Your task to perform on an android device: turn on translation in the chrome app Image 0: 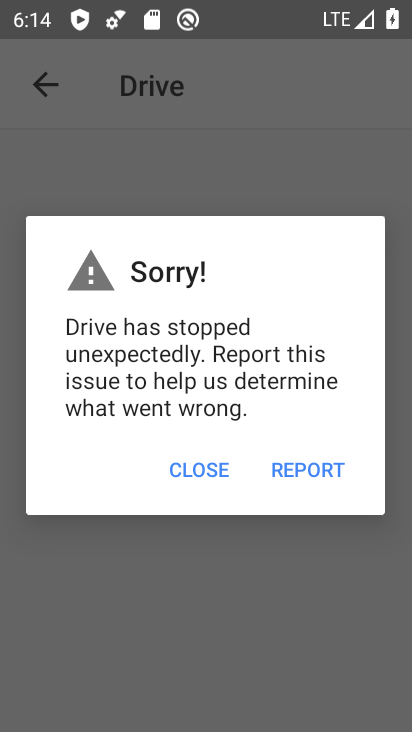
Step 0: press home button
Your task to perform on an android device: turn on translation in the chrome app Image 1: 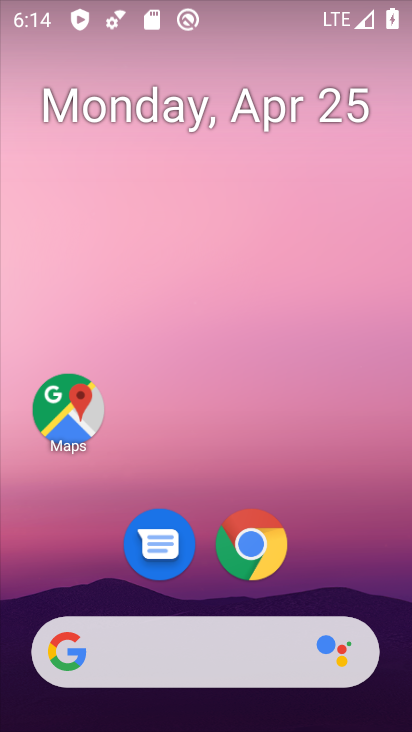
Step 1: click (239, 532)
Your task to perform on an android device: turn on translation in the chrome app Image 2: 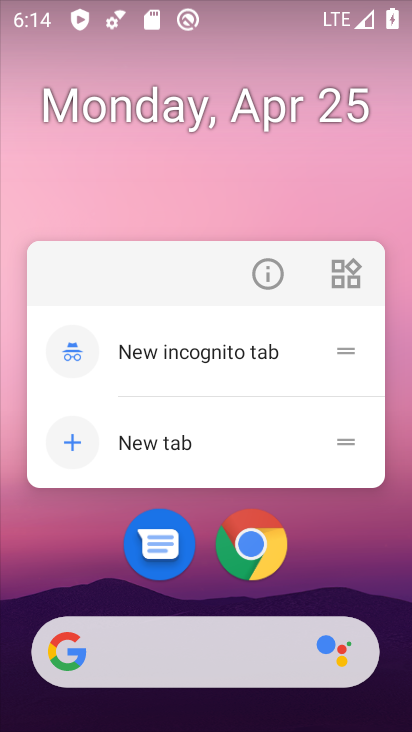
Step 2: click (248, 541)
Your task to perform on an android device: turn on translation in the chrome app Image 3: 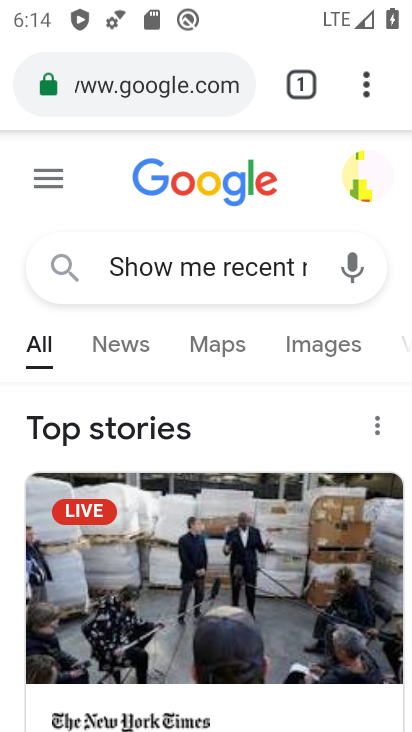
Step 3: click (373, 91)
Your task to perform on an android device: turn on translation in the chrome app Image 4: 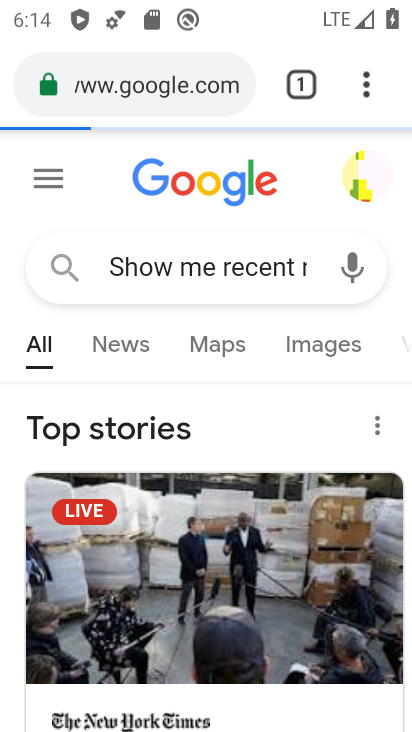
Step 4: drag from (373, 91) to (134, 607)
Your task to perform on an android device: turn on translation in the chrome app Image 5: 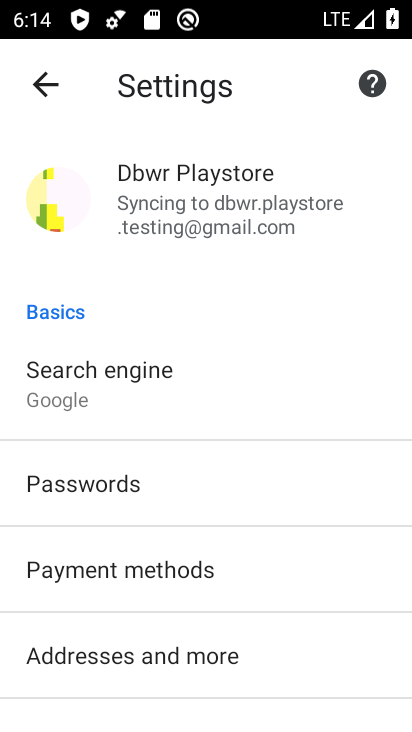
Step 5: drag from (317, 654) to (379, 103)
Your task to perform on an android device: turn on translation in the chrome app Image 6: 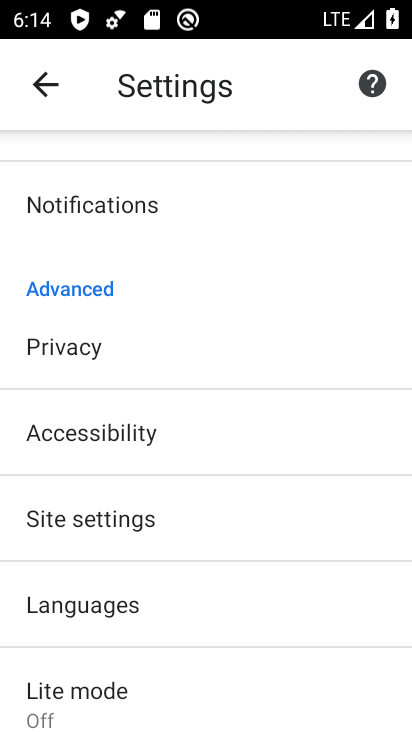
Step 6: drag from (274, 659) to (260, 255)
Your task to perform on an android device: turn on translation in the chrome app Image 7: 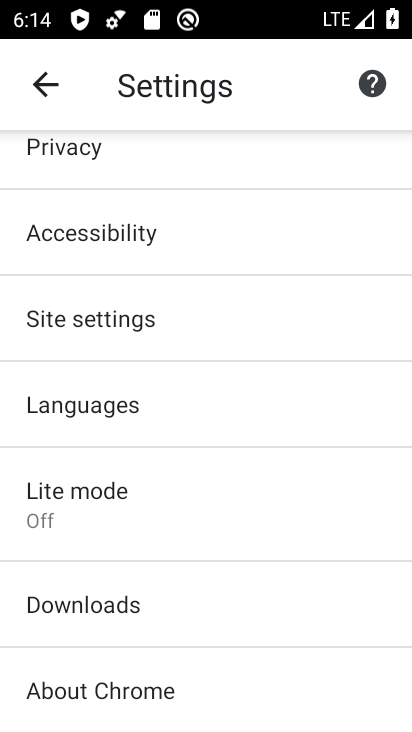
Step 7: click (155, 391)
Your task to perform on an android device: turn on translation in the chrome app Image 8: 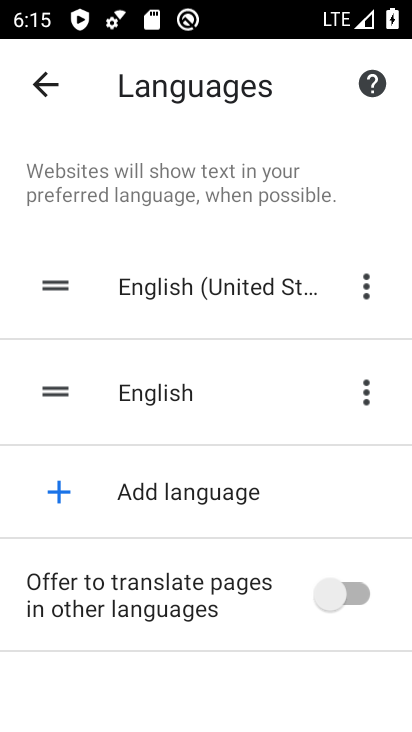
Step 8: click (269, 586)
Your task to perform on an android device: turn on translation in the chrome app Image 9: 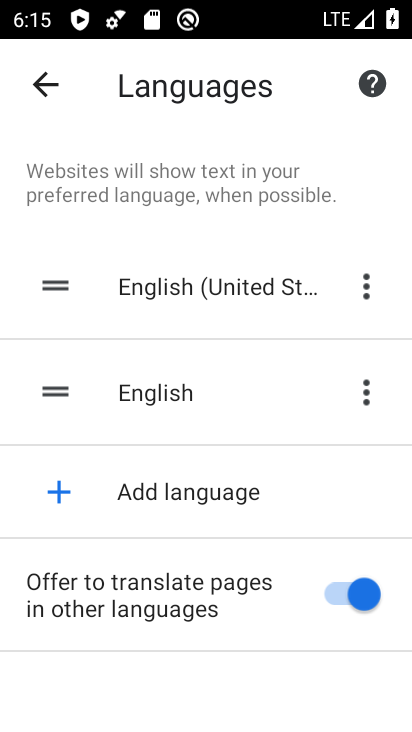
Step 9: task complete